Your task to perform on an android device: Search for vegetarian restaurants on Maps Image 0: 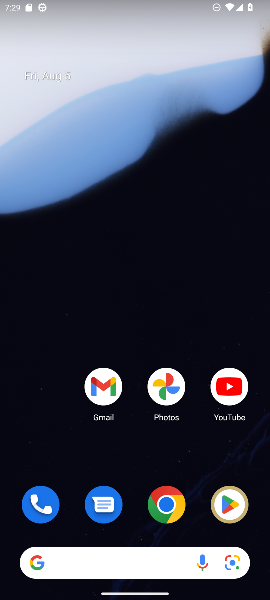
Step 0: drag from (154, 562) to (131, 14)
Your task to perform on an android device: Search for vegetarian restaurants on Maps Image 1: 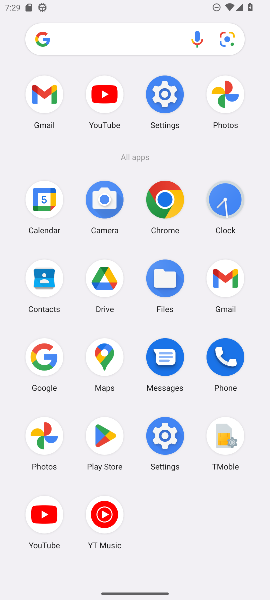
Step 1: click (96, 354)
Your task to perform on an android device: Search for vegetarian restaurants on Maps Image 2: 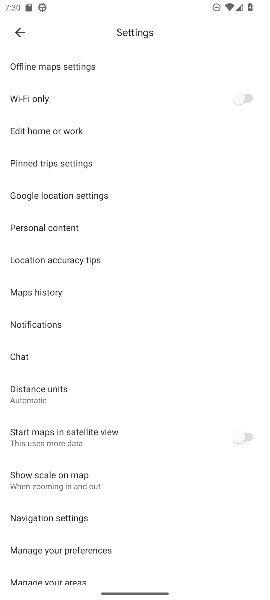
Step 2: click (22, 27)
Your task to perform on an android device: Search for vegetarian restaurants on Maps Image 3: 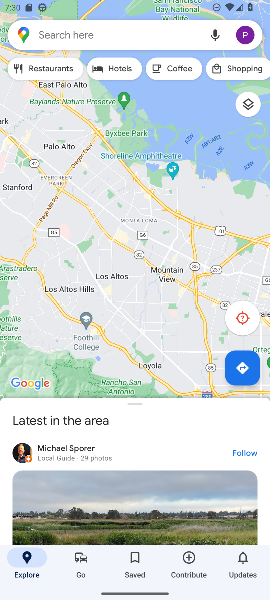
Step 3: click (78, 47)
Your task to perform on an android device: Search for vegetarian restaurants on Maps Image 4: 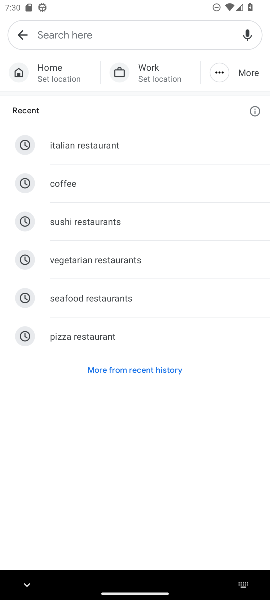
Step 4: click (136, 258)
Your task to perform on an android device: Search for vegetarian restaurants on Maps Image 5: 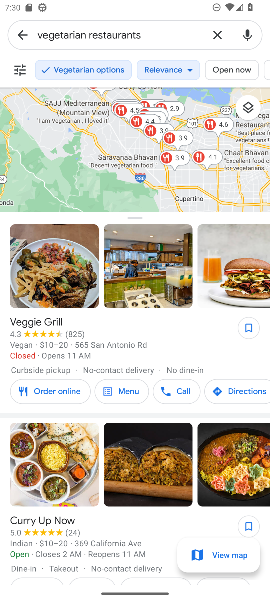
Step 5: task complete